Your task to perform on an android device: Play the last video I watched on Youtube Image 0: 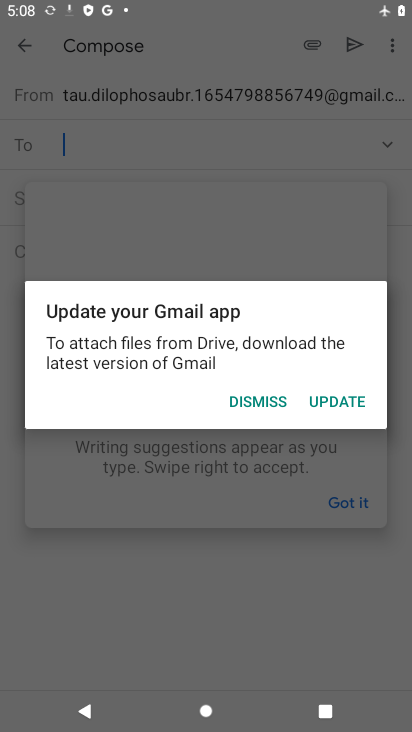
Step 0: press home button
Your task to perform on an android device: Play the last video I watched on Youtube Image 1: 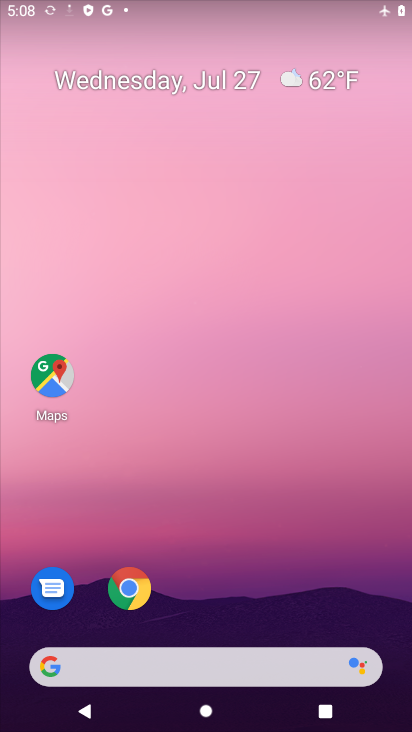
Step 1: drag from (174, 618) to (170, 3)
Your task to perform on an android device: Play the last video I watched on Youtube Image 2: 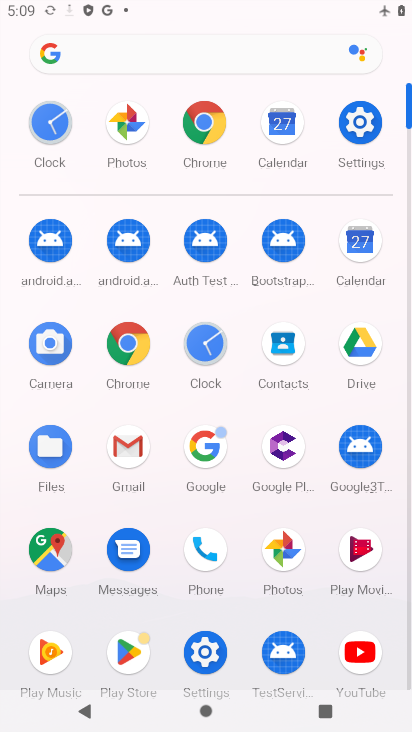
Step 2: click (362, 649)
Your task to perform on an android device: Play the last video I watched on Youtube Image 3: 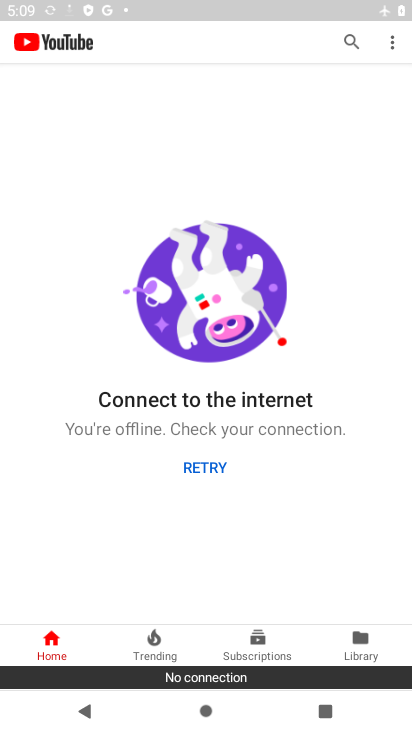
Step 3: task complete